Your task to perform on an android device: Clear all items from cart on target.com. Add "corsair k70" to the cart on target.com, then select checkout. Image 0: 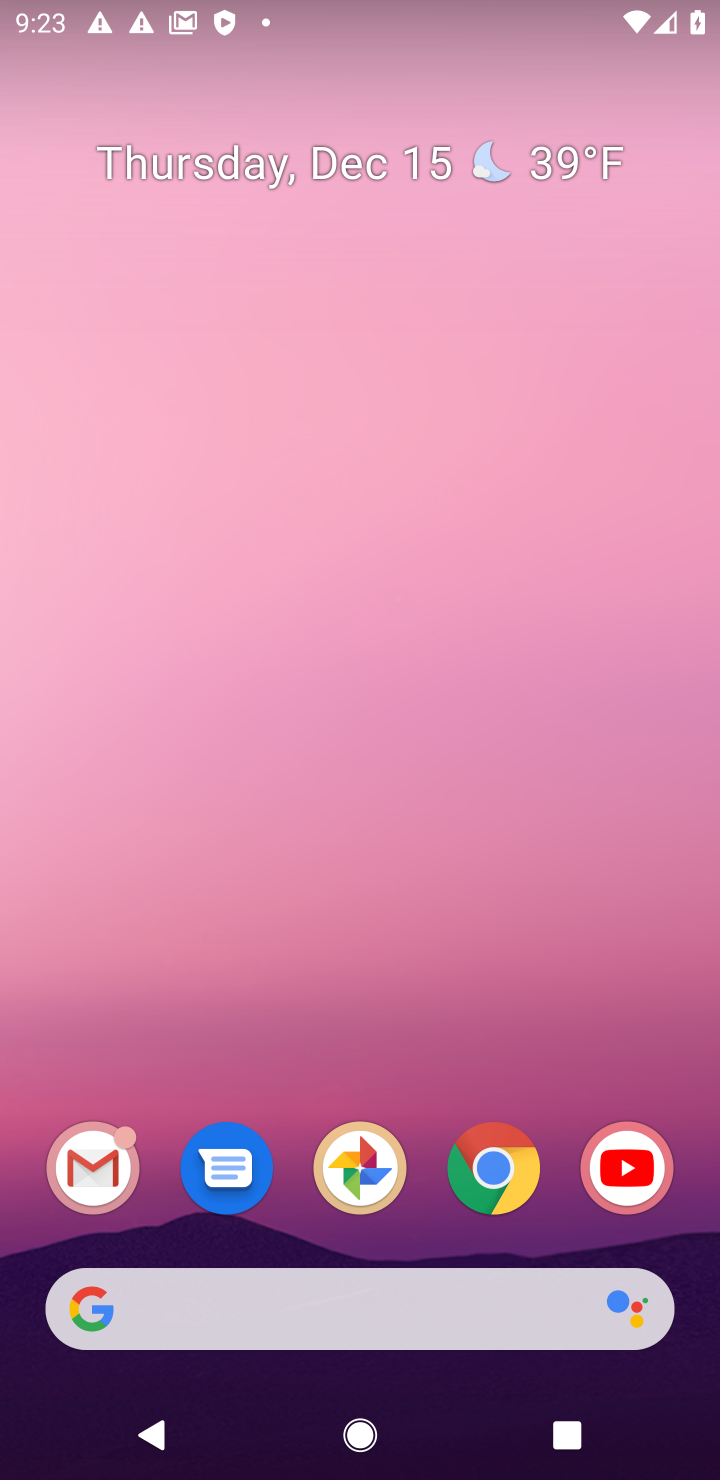
Step 0: click (493, 1175)
Your task to perform on an android device: Clear all items from cart on target.com. Add "corsair k70" to the cart on target.com, then select checkout. Image 1: 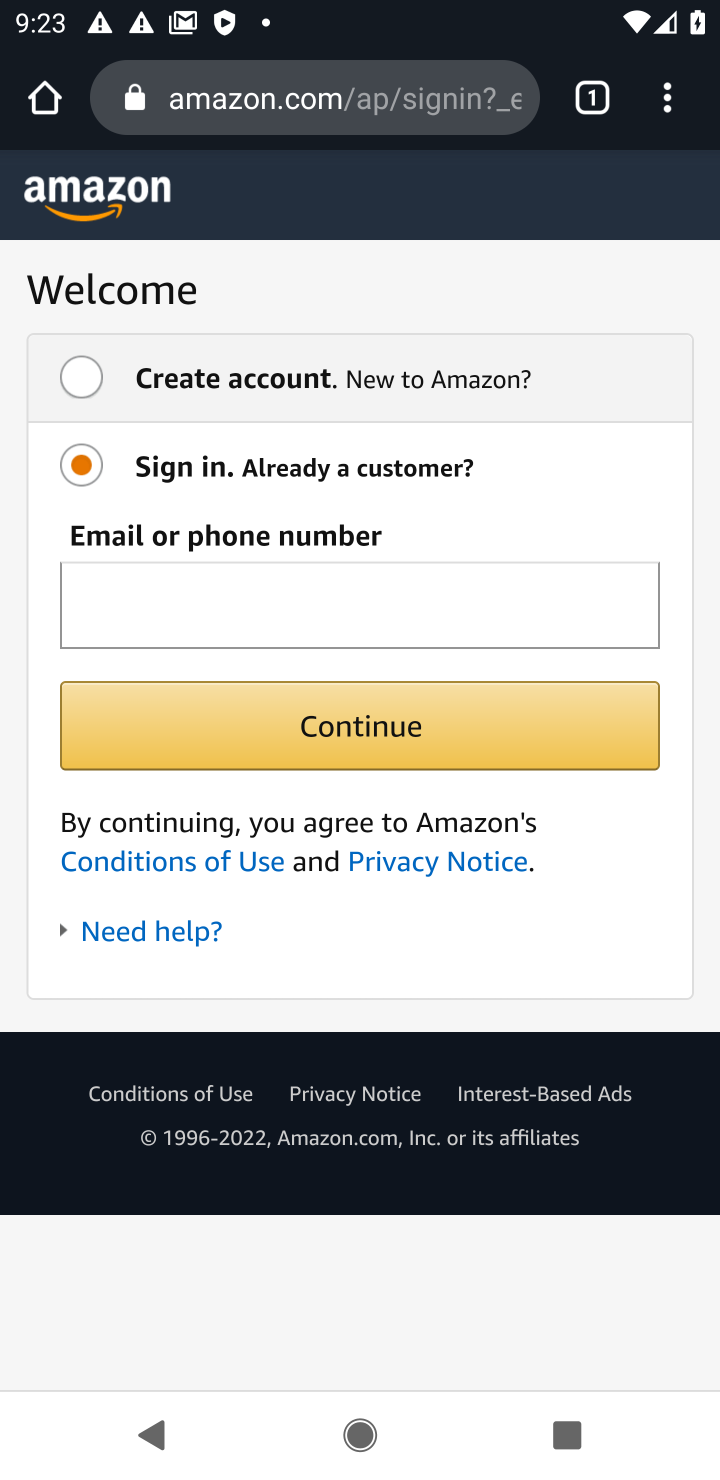
Step 1: click (321, 100)
Your task to perform on an android device: Clear all items from cart on target.com. Add "corsair k70" to the cart on target.com, then select checkout. Image 2: 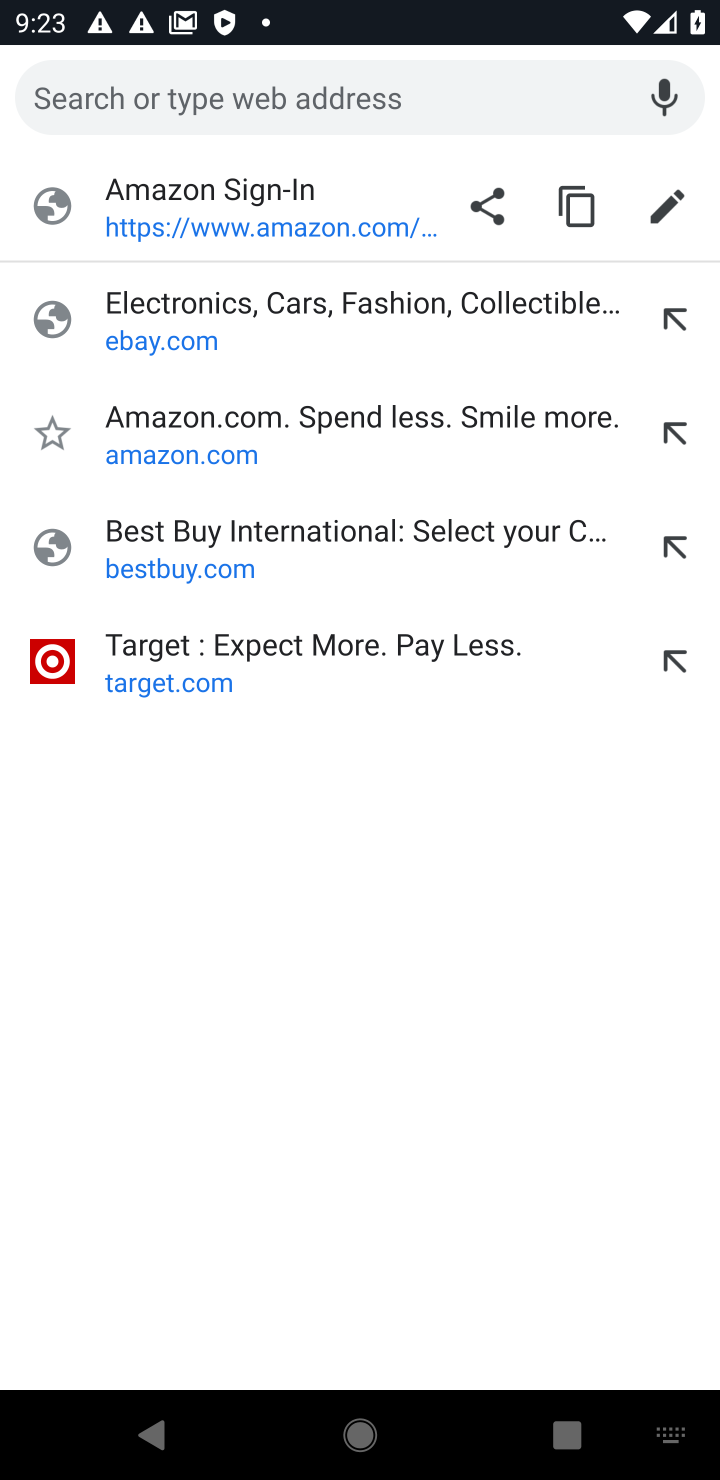
Step 2: click (239, 656)
Your task to perform on an android device: Clear all items from cart on target.com. Add "corsair k70" to the cart on target.com, then select checkout. Image 3: 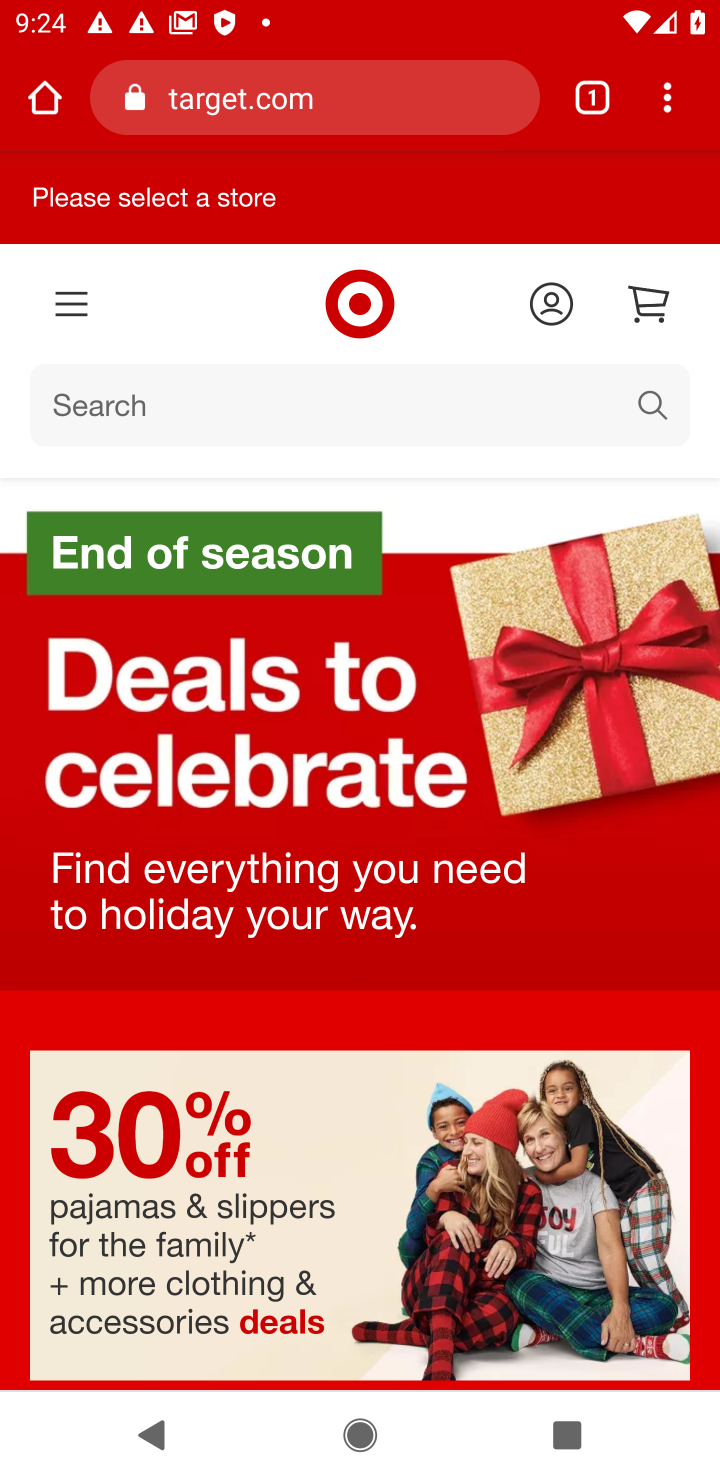
Step 3: click (460, 393)
Your task to perform on an android device: Clear all items from cart on target.com. Add "corsair k70" to the cart on target.com, then select checkout. Image 4: 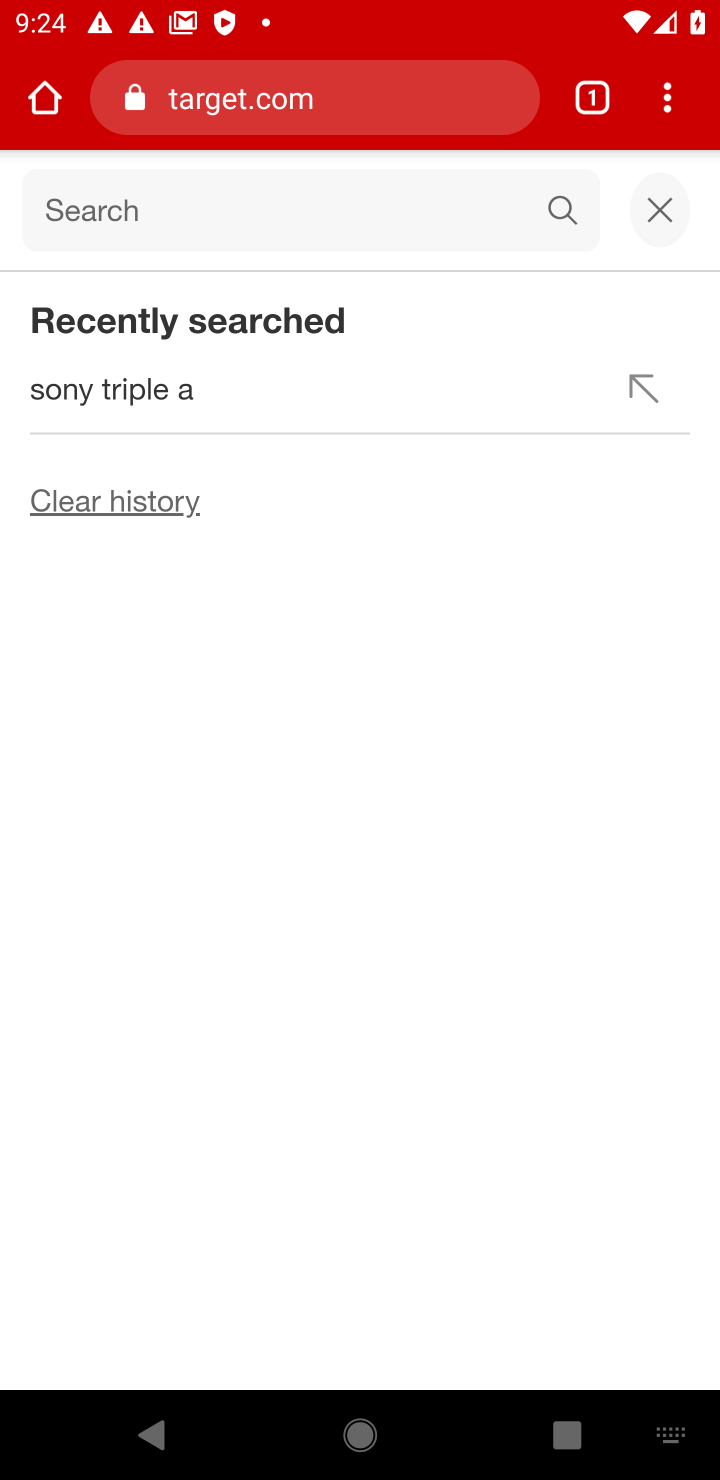
Step 4: type "corsair k70"
Your task to perform on an android device: Clear all items from cart on target.com. Add "corsair k70" to the cart on target.com, then select checkout. Image 5: 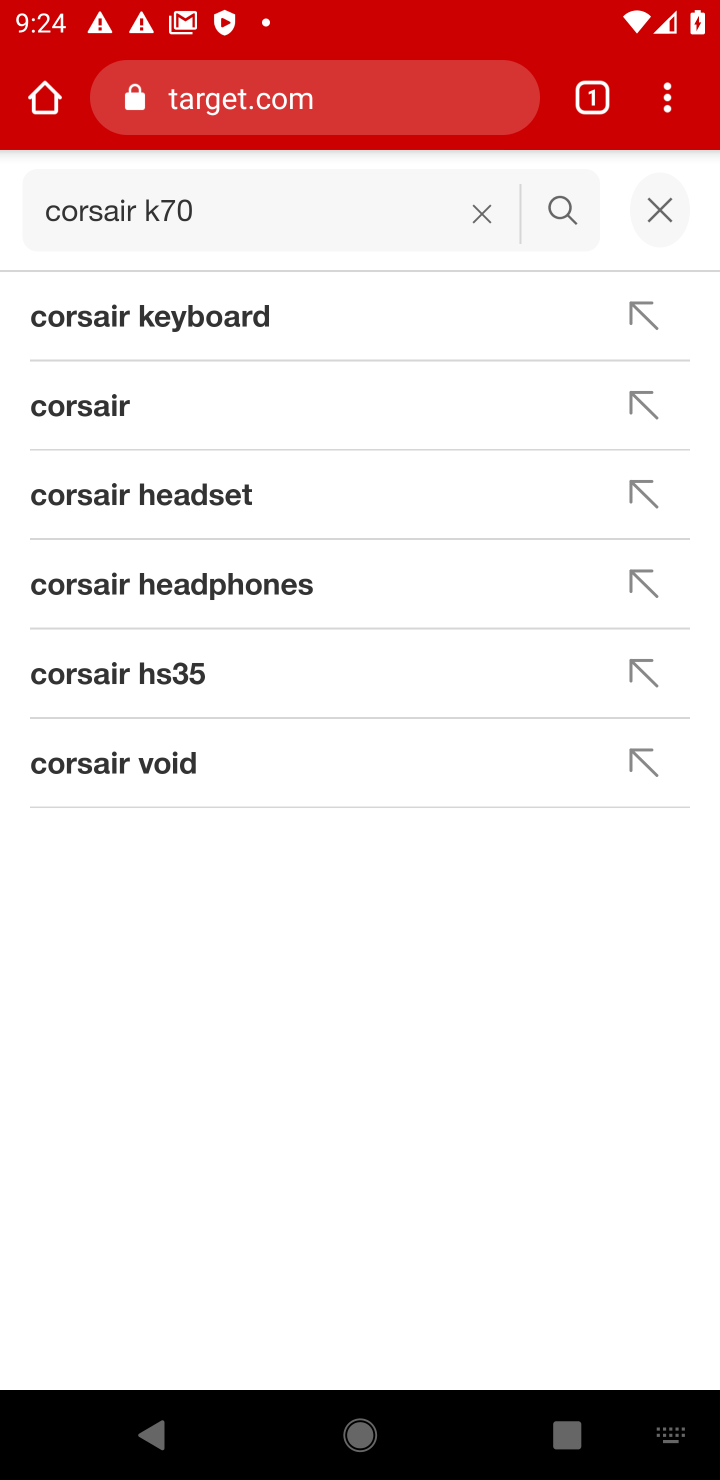
Step 5: click (292, 329)
Your task to perform on an android device: Clear all items from cart on target.com. Add "corsair k70" to the cart on target.com, then select checkout. Image 6: 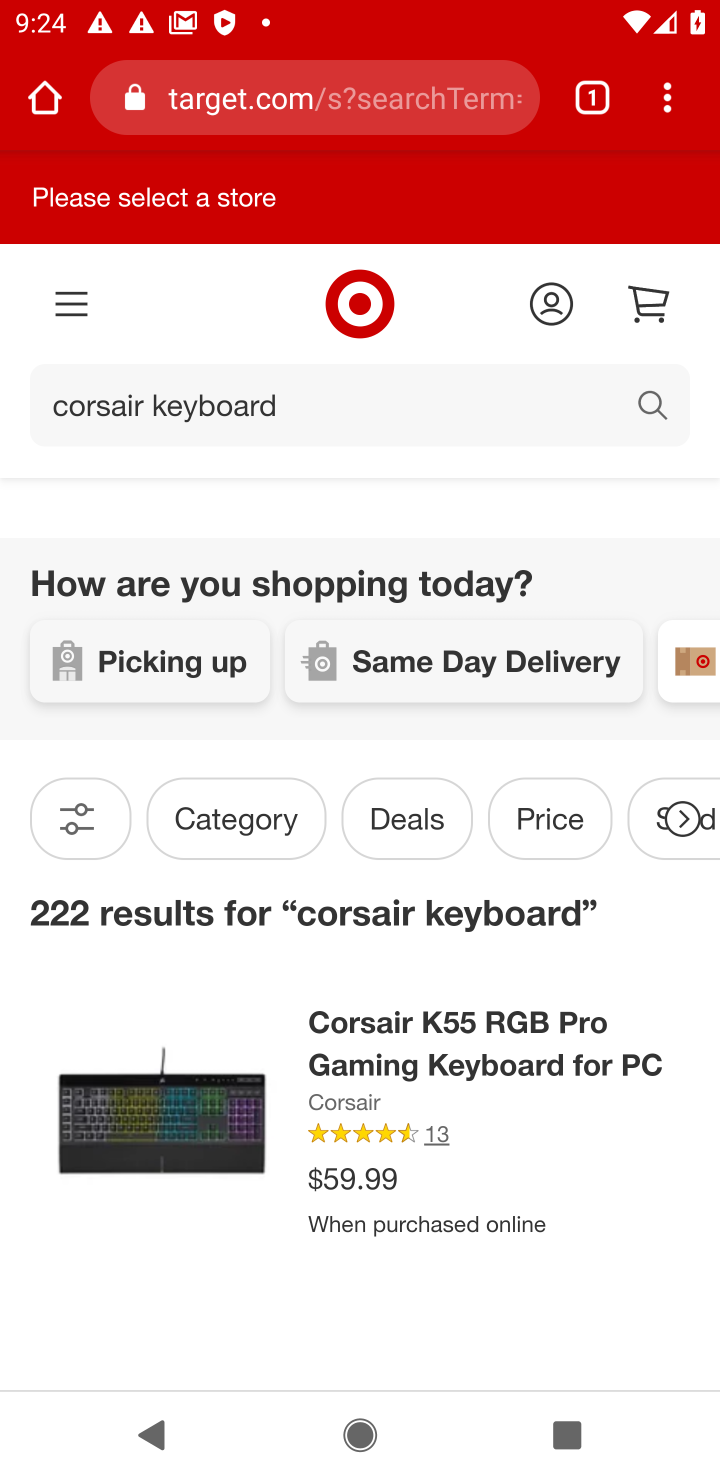
Step 6: click (652, 403)
Your task to perform on an android device: Clear all items from cart on target.com. Add "corsair k70" to the cart on target.com, then select checkout. Image 7: 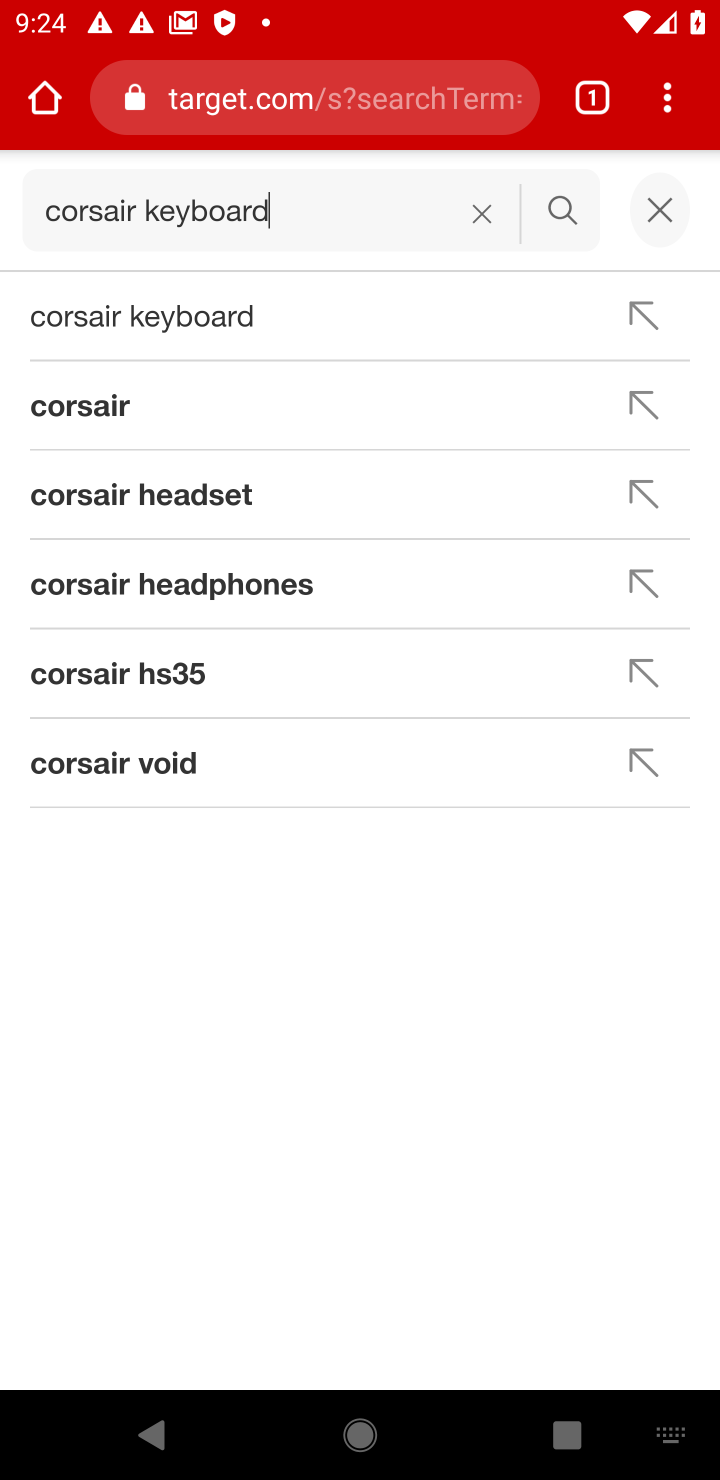
Step 7: click (161, 326)
Your task to perform on an android device: Clear all items from cart on target.com. Add "corsair k70" to the cart on target.com, then select checkout. Image 8: 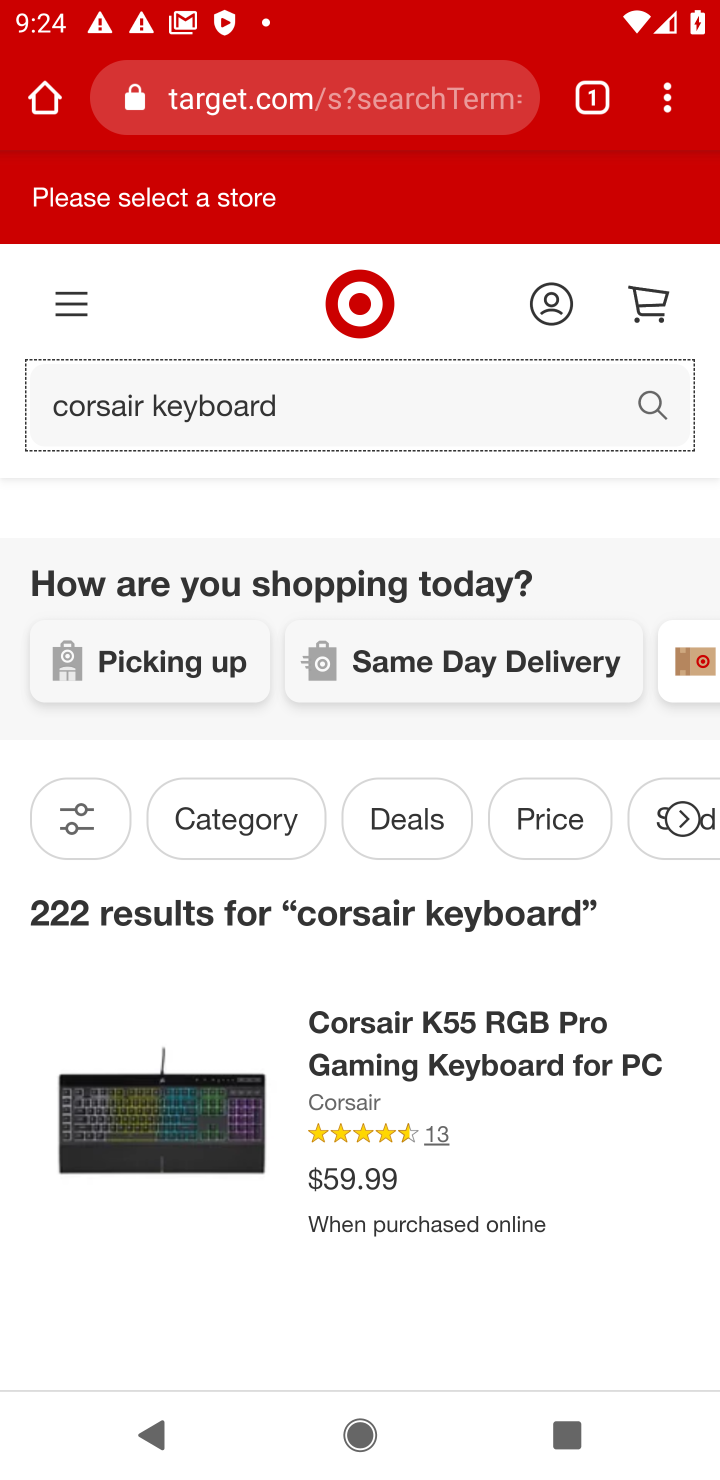
Step 8: click (548, 1086)
Your task to perform on an android device: Clear all items from cart on target.com. Add "corsair k70" to the cart on target.com, then select checkout. Image 9: 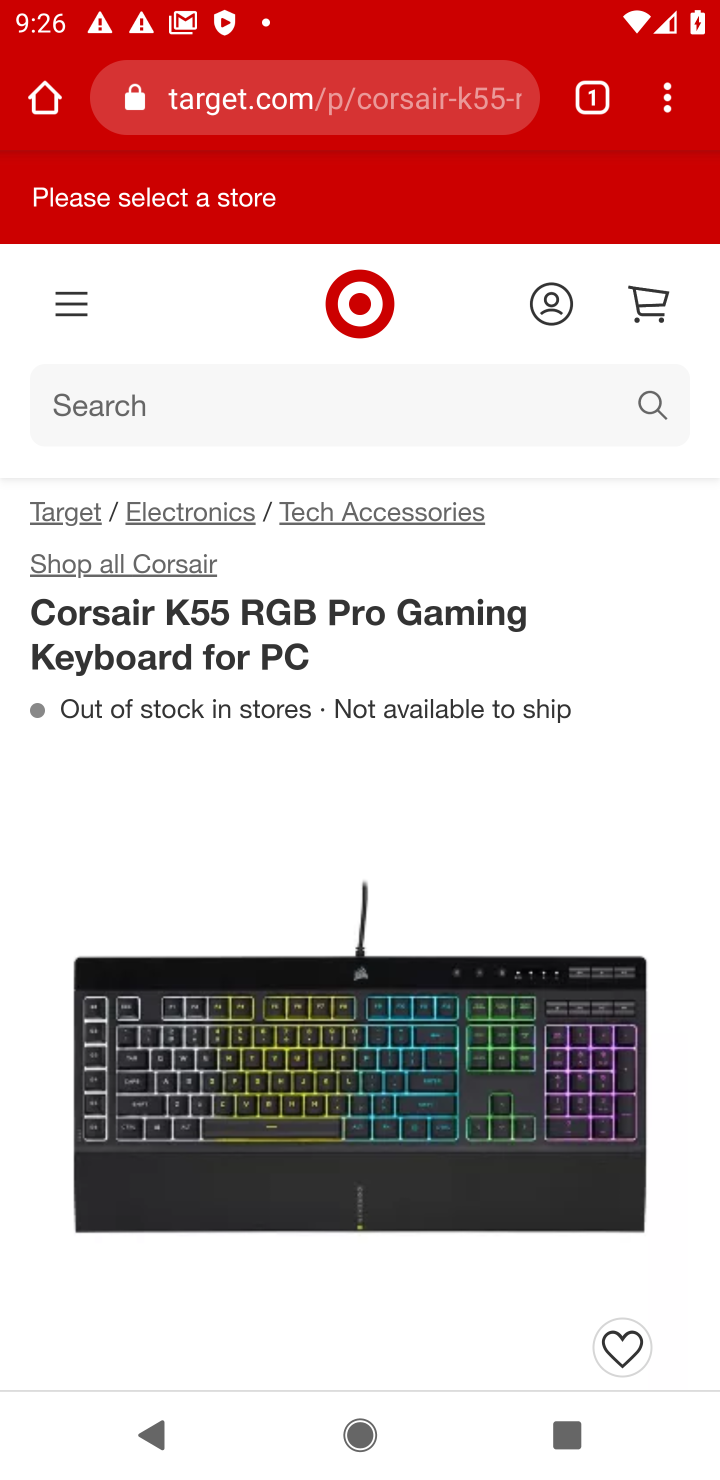
Step 9: drag from (506, 1130) to (476, 185)
Your task to perform on an android device: Clear all items from cart on target.com. Add "corsair k70" to the cart on target.com, then select checkout. Image 10: 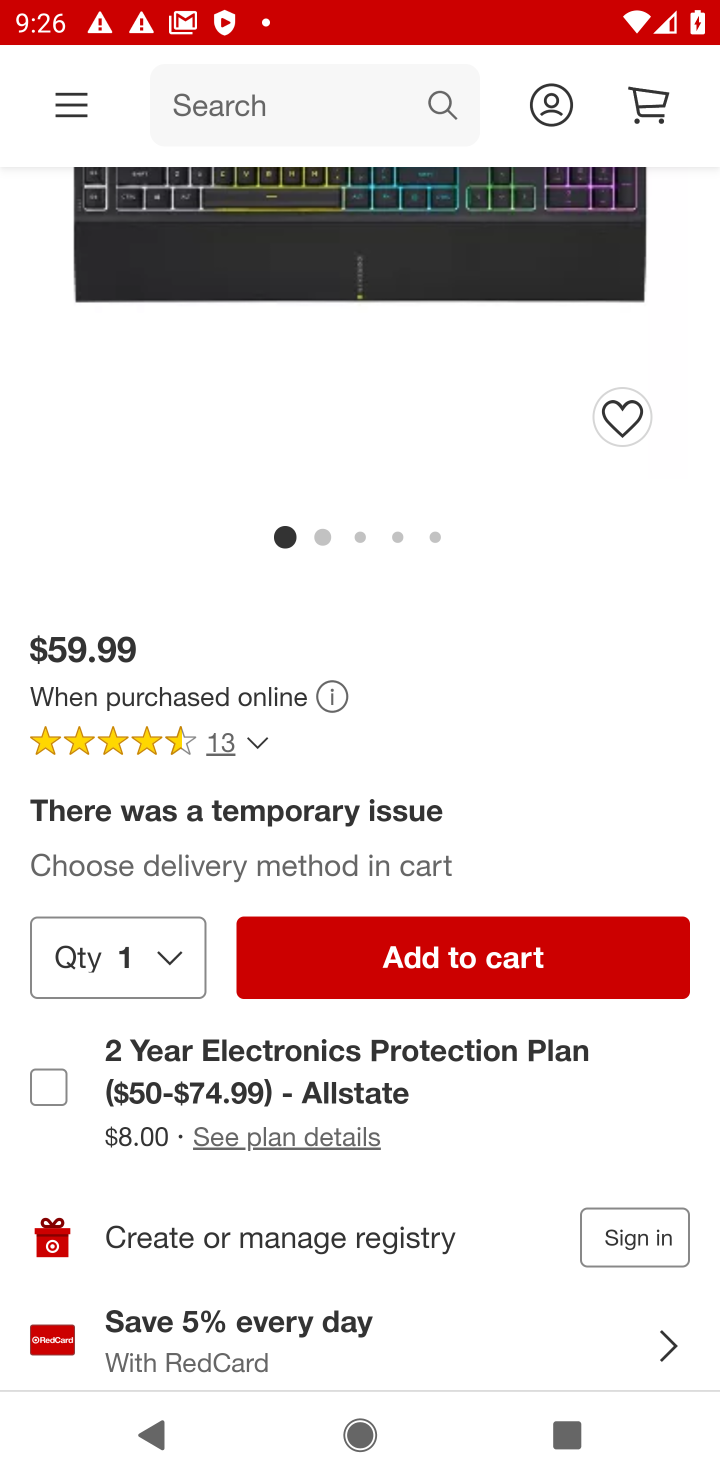
Step 10: click (416, 964)
Your task to perform on an android device: Clear all items from cart on target.com. Add "corsair k70" to the cart on target.com, then select checkout. Image 11: 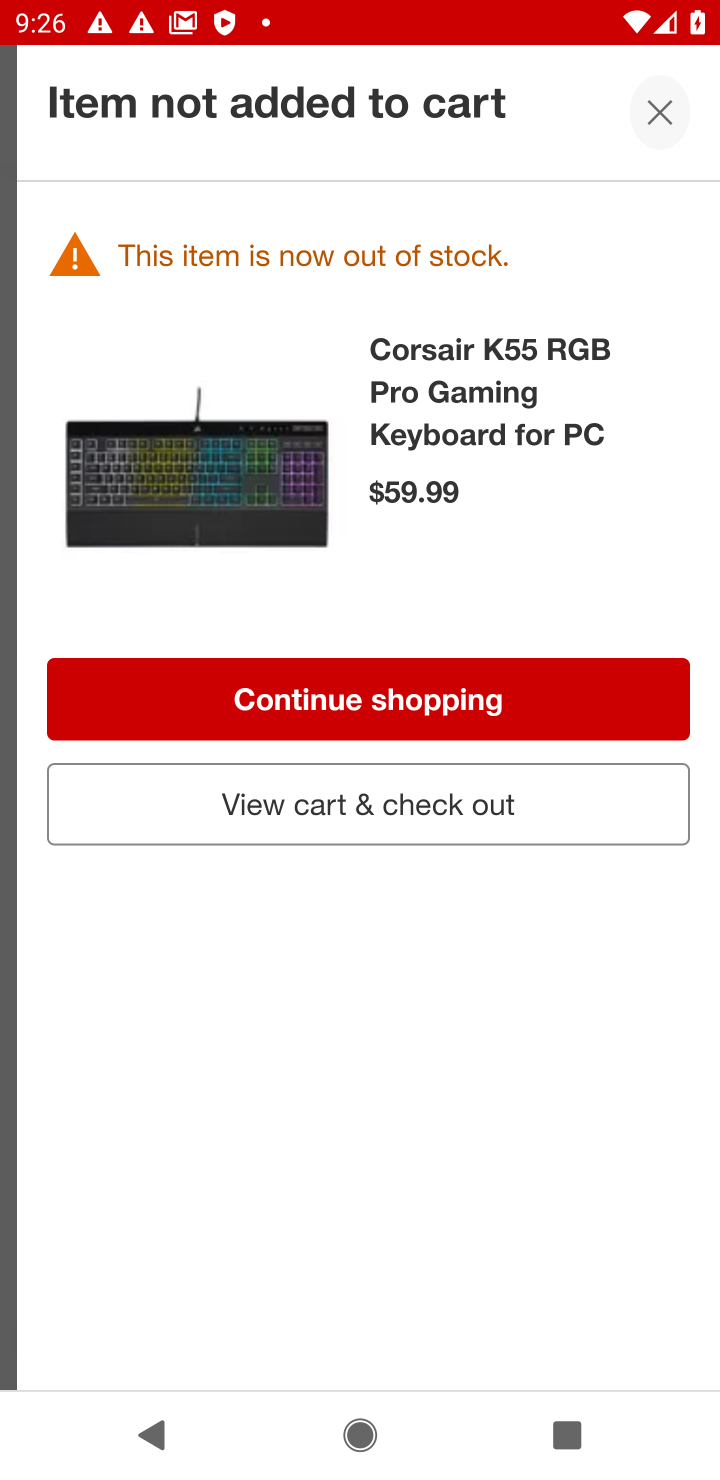
Step 11: click (389, 802)
Your task to perform on an android device: Clear all items from cart on target.com. Add "corsair k70" to the cart on target.com, then select checkout. Image 12: 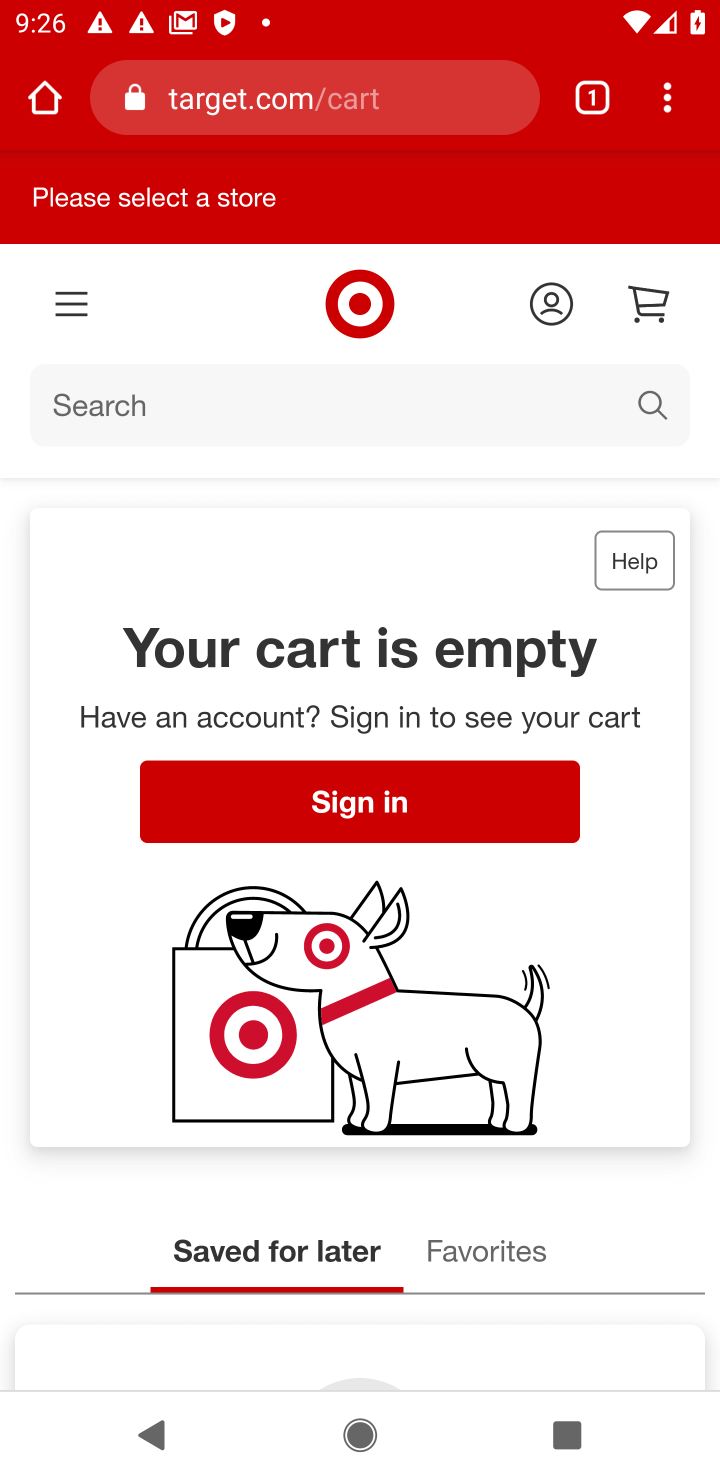
Step 12: task complete